Your task to perform on an android device: Open Wikipedia Image 0: 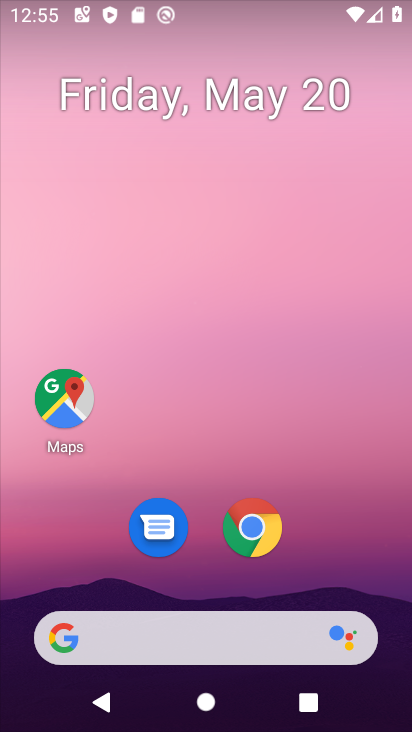
Step 0: click (251, 537)
Your task to perform on an android device: Open Wikipedia Image 1: 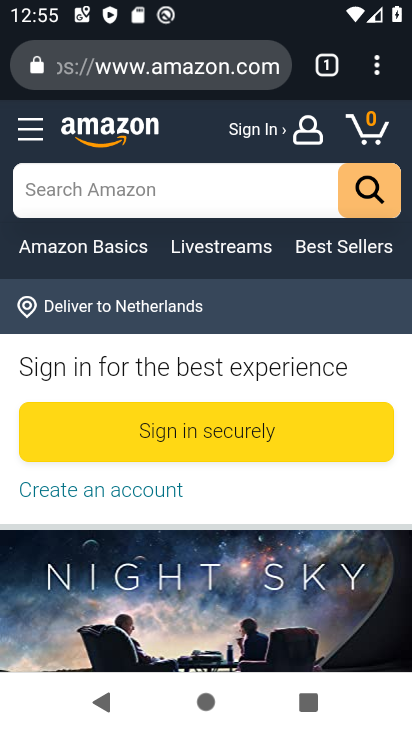
Step 1: click (371, 79)
Your task to perform on an android device: Open Wikipedia Image 2: 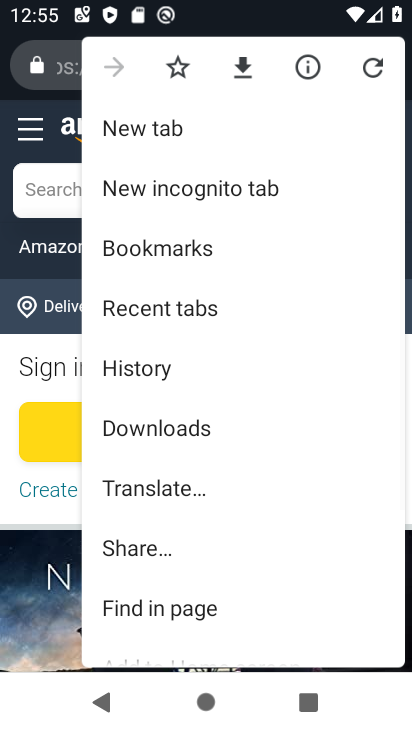
Step 2: click (298, 127)
Your task to perform on an android device: Open Wikipedia Image 3: 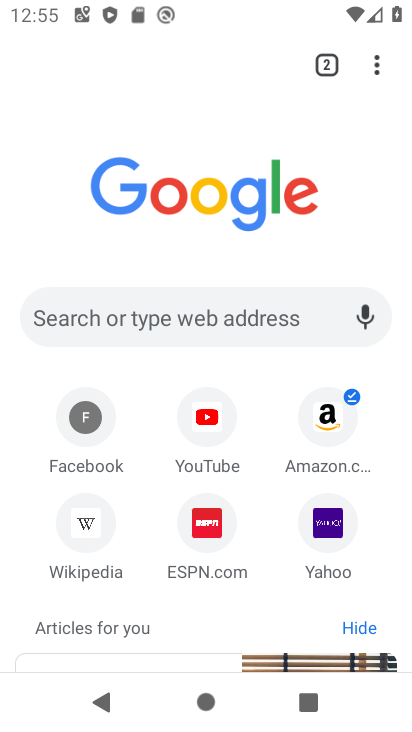
Step 3: click (76, 517)
Your task to perform on an android device: Open Wikipedia Image 4: 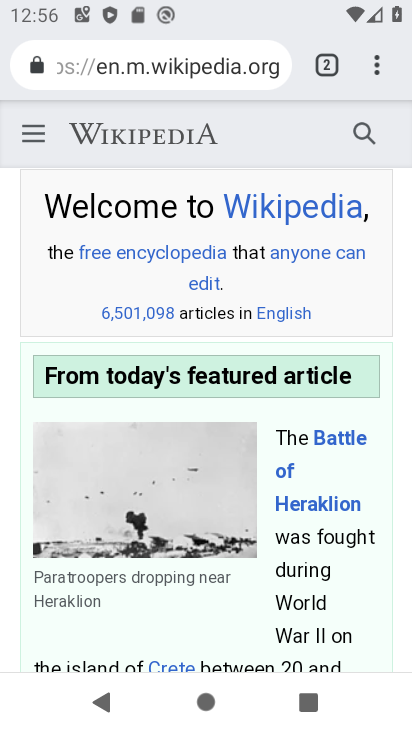
Step 4: task complete